Your task to perform on an android device: turn on the 12-hour format for clock Image 0: 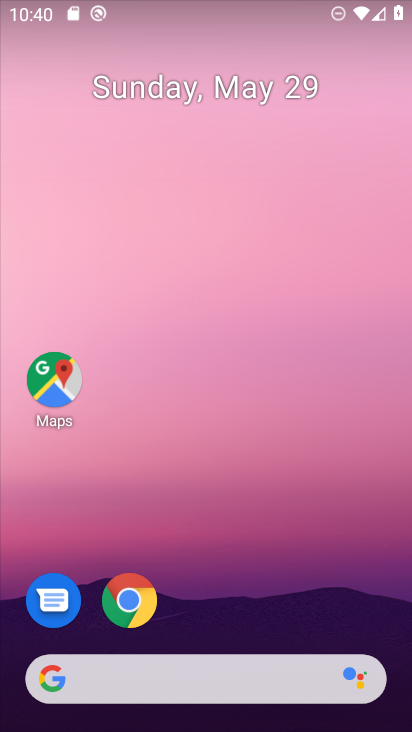
Step 0: drag from (232, 726) to (353, 7)
Your task to perform on an android device: turn on the 12-hour format for clock Image 1: 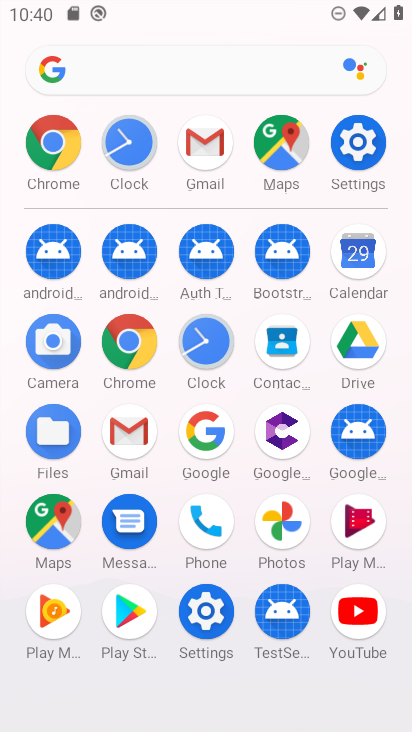
Step 1: click (201, 340)
Your task to perform on an android device: turn on the 12-hour format for clock Image 2: 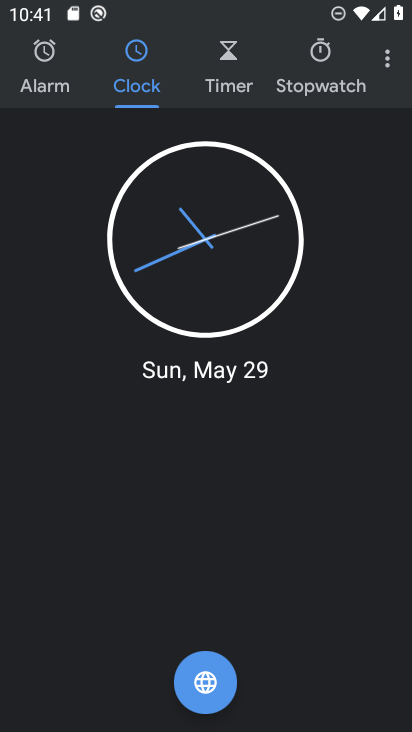
Step 2: click (388, 68)
Your task to perform on an android device: turn on the 12-hour format for clock Image 3: 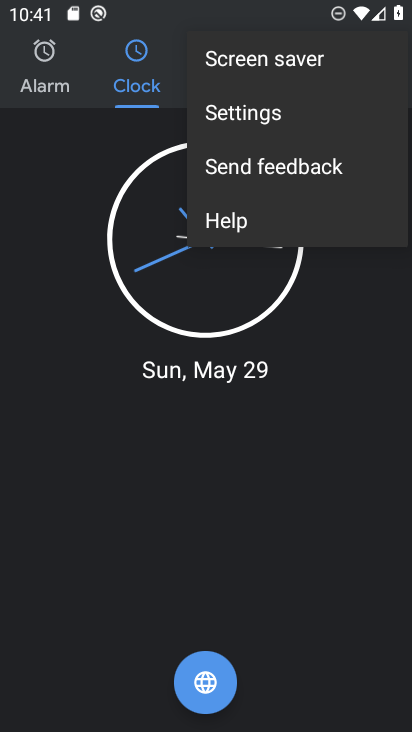
Step 3: click (239, 108)
Your task to perform on an android device: turn on the 12-hour format for clock Image 4: 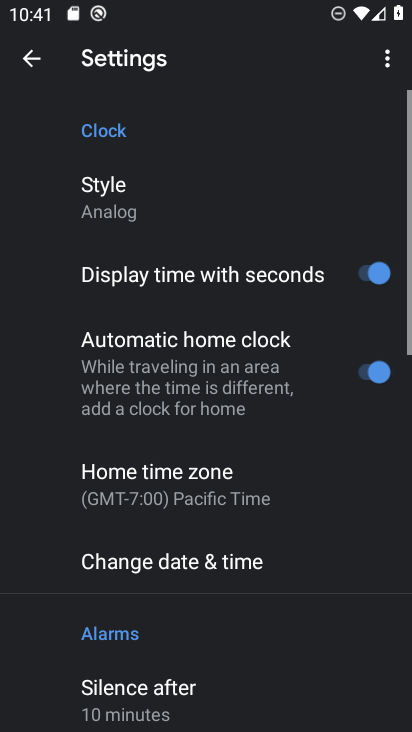
Step 4: drag from (225, 627) to (186, 288)
Your task to perform on an android device: turn on the 12-hour format for clock Image 5: 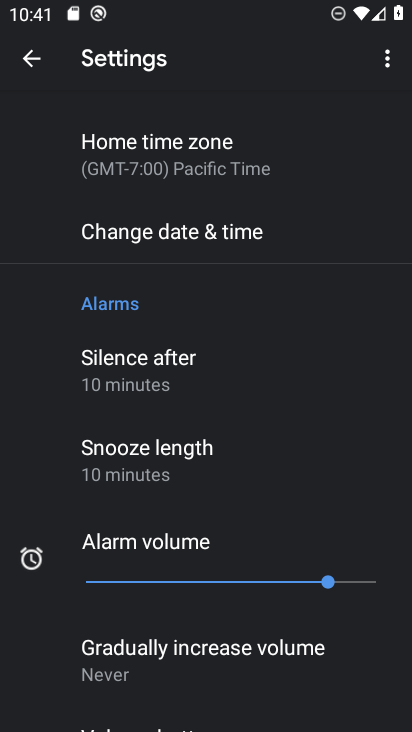
Step 5: drag from (240, 102) to (247, 651)
Your task to perform on an android device: turn on the 12-hour format for clock Image 6: 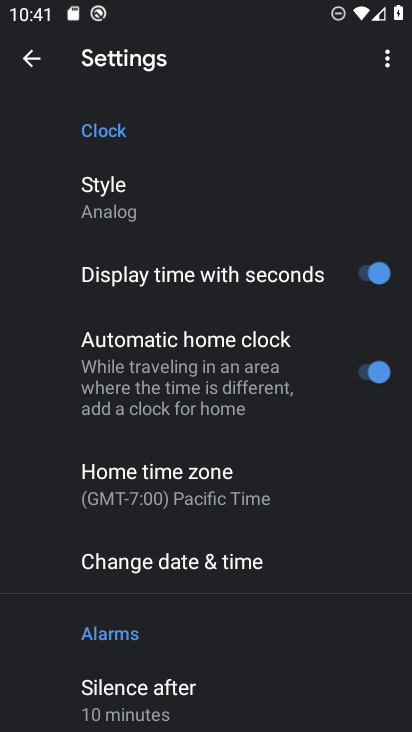
Step 6: click (142, 562)
Your task to perform on an android device: turn on the 12-hour format for clock Image 7: 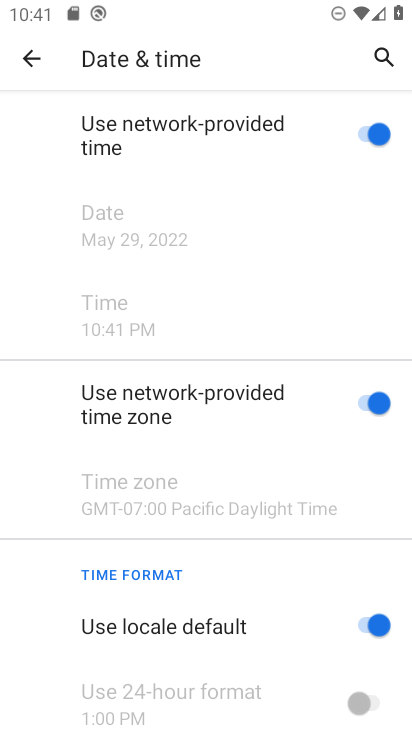
Step 7: task complete